Your task to perform on an android device: Open calendar and show me the second week of next month Image 0: 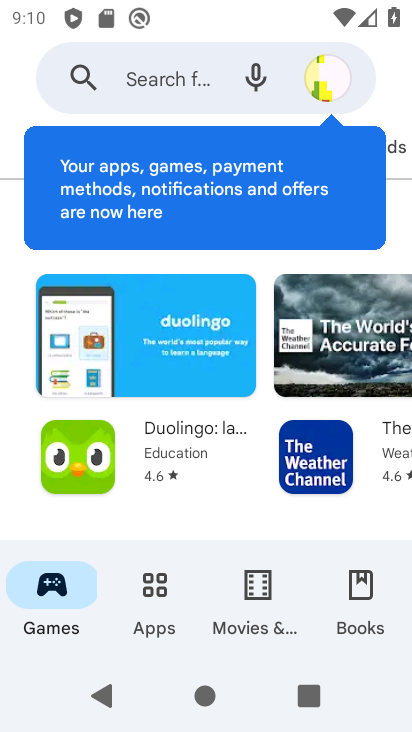
Step 0: press home button
Your task to perform on an android device: Open calendar and show me the second week of next month Image 1: 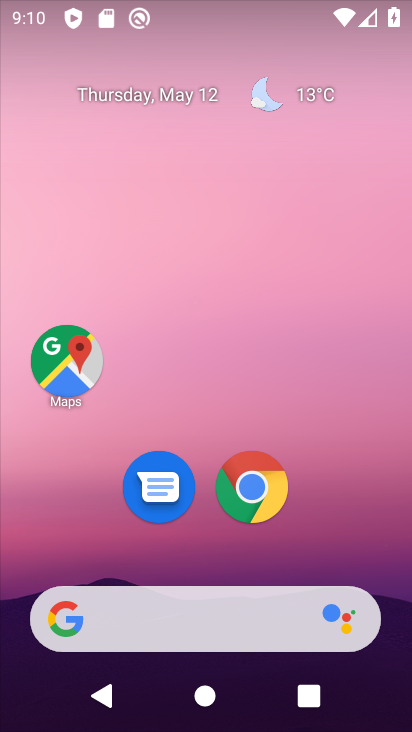
Step 1: click (167, 94)
Your task to perform on an android device: Open calendar and show me the second week of next month Image 2: 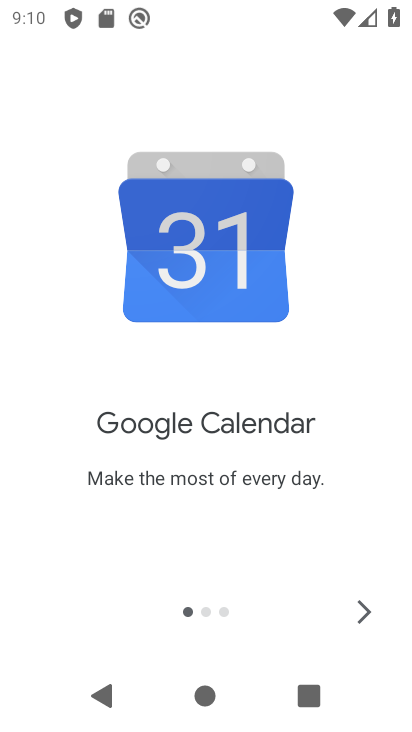
Step 2: click (364, 611)
Your task to perform on an android device: Open calendar and show me the second week of next month Image 3: 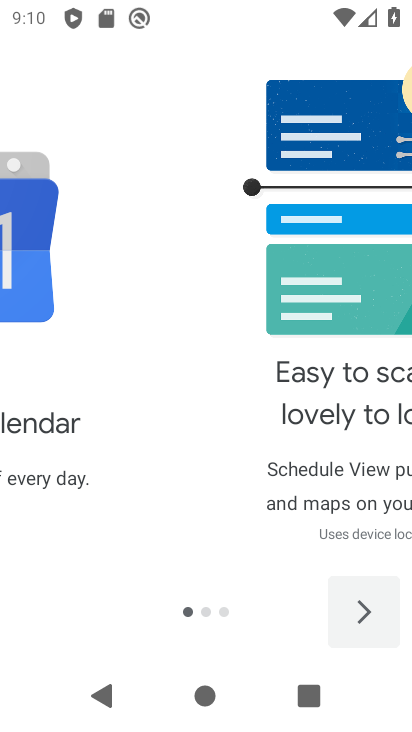
Step 3: click (364, 611)
Your task to perform on an android device: Open calendar and show me the second week of next month Image 4: 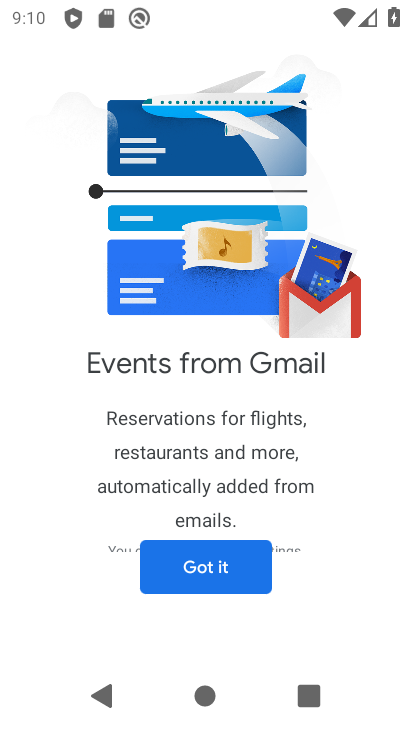
Step 4: click (207, 579)
Your task to perform on an android device: Open calendar and show me the second week of next month Image 5: 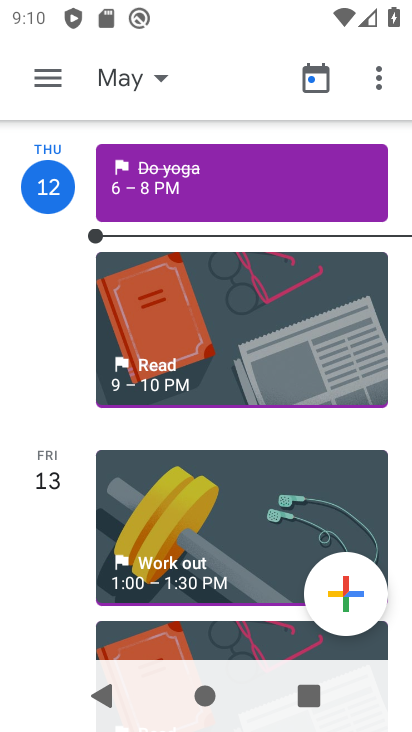
Step 5: click (44, 77)
Your task to perform on an android device: Open calendar and show me the second week of next month Image 6: 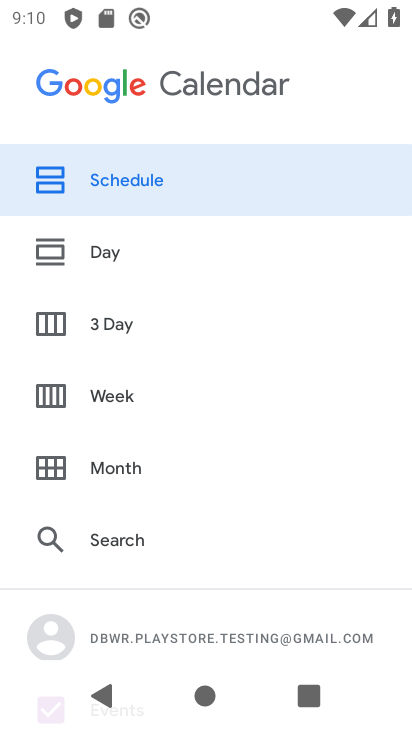
Step 6: click (104, 388)
Your task to perform on an android device: Open calendar and show me the second week of next month Image 7: 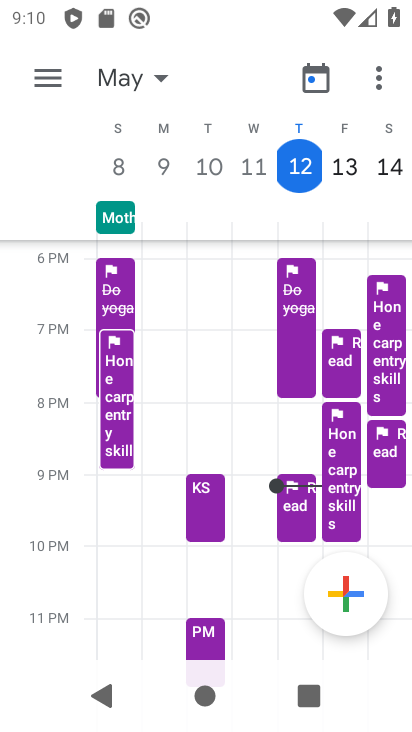
Step 7: click (153, 69)
Your task to perform on an android device: Open calendar and show me the second week of next month Image 8: 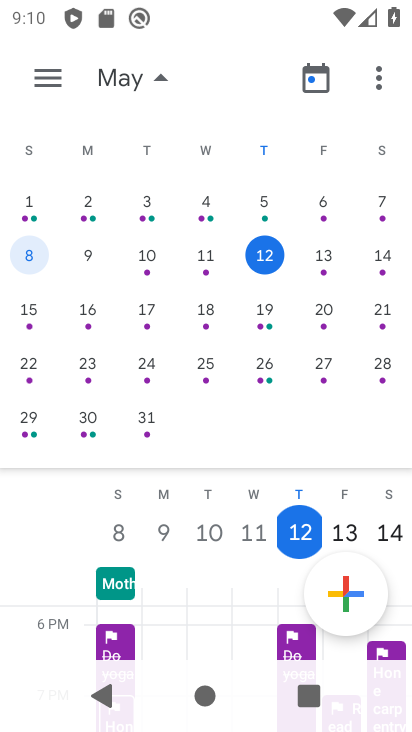
Step 8: drag from (201, 233) to (3, 226)
Your task to perform on an android device: Open calendar and show me the second week of next month Image 9: 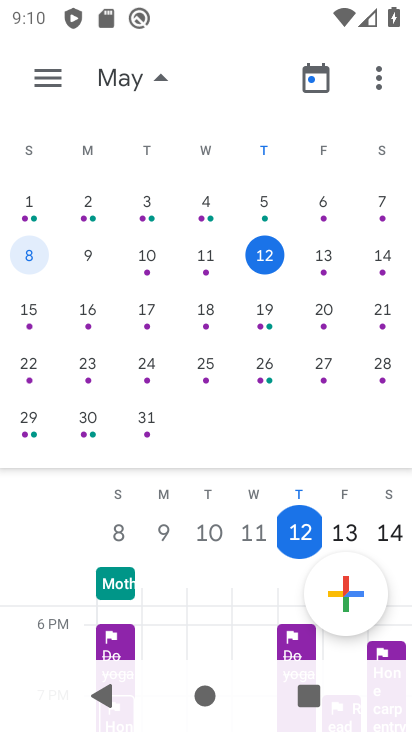
Step 9: drag from (284, 292) to (12, 273)
Your task to perform on an android device: Open calendar and show me the second week of next month Image 10: 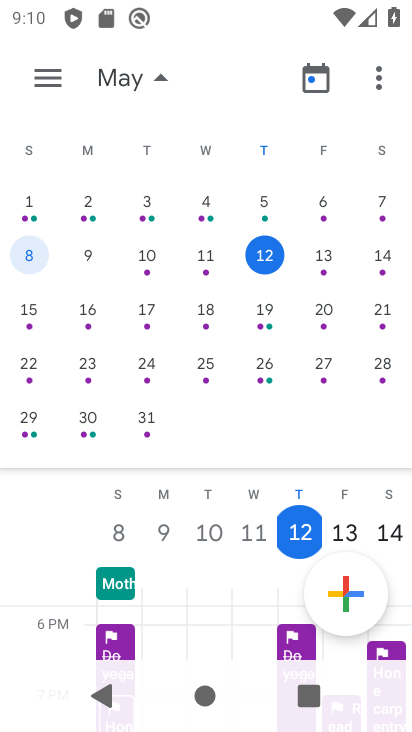
Step 10: drag from (346, 330) to (5, 390)
Your task to perform on an android device: Open calendar and show me the second week of next month Image 11: 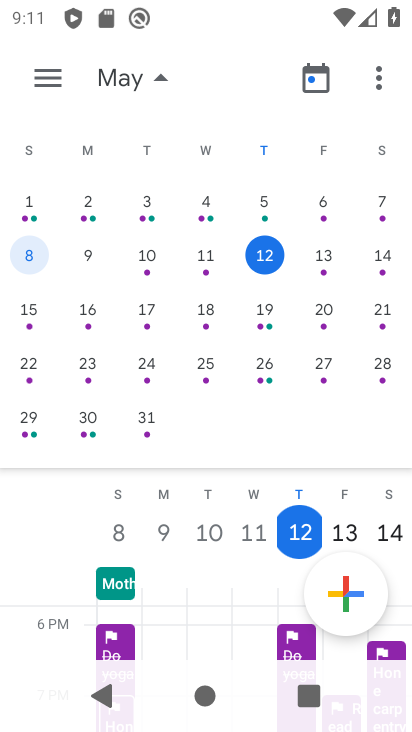
Step 11: drag from (304, 328) to (14, 418)
Your task to perform on an android device: Open calendar and show me the second week of next month Image 12: 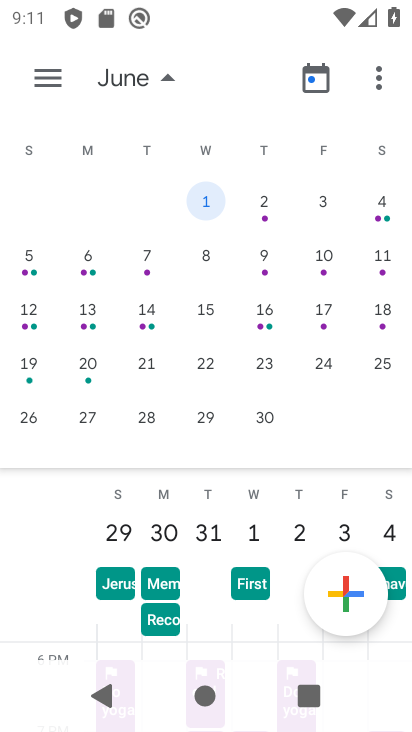
Step 12: click (41, 258)
Your task to perform on an android device: Open calendar and show me the second week of next month Image 13: 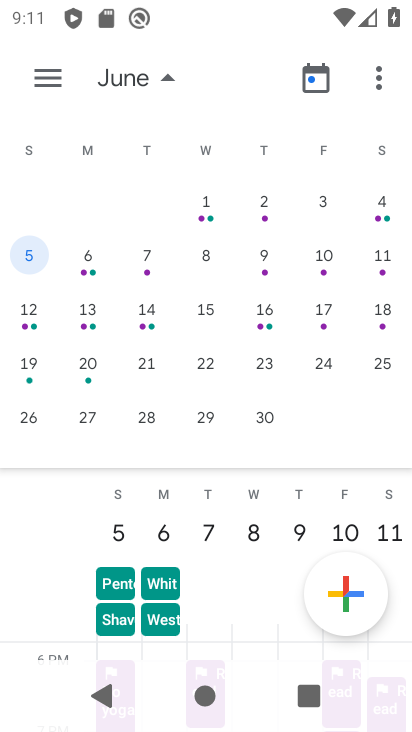
Step 13: task complete